Your task to perform on an android device: Open network settings Image 0: 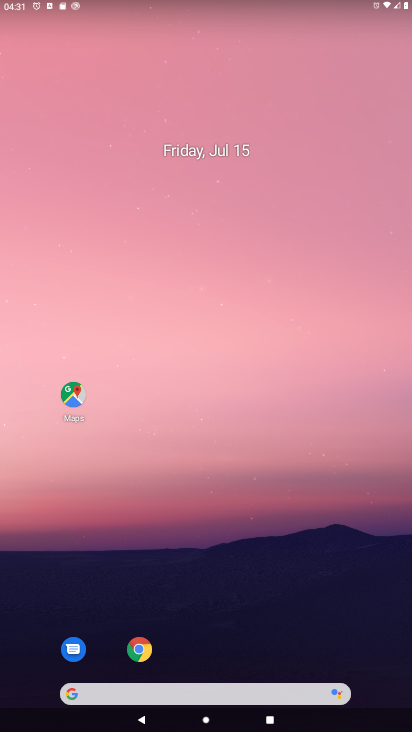
Step 0: drag from (386, 679) to (318, 66)
Your task to perform on an android device: Open network settings Image 1: 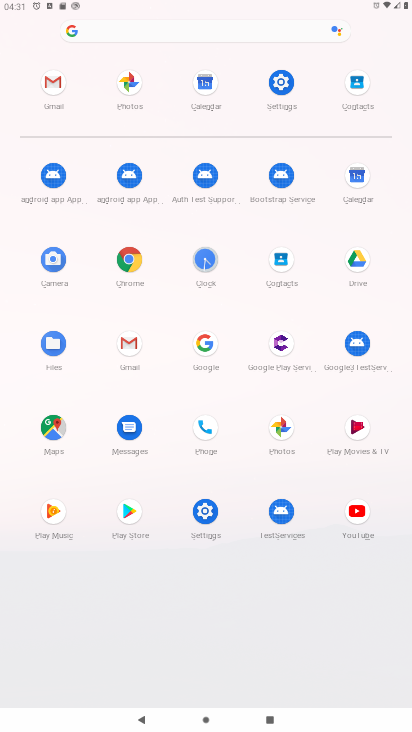
Step 1: click (202, 510)
Your task to perform on an android device: Open network settings Image 2: 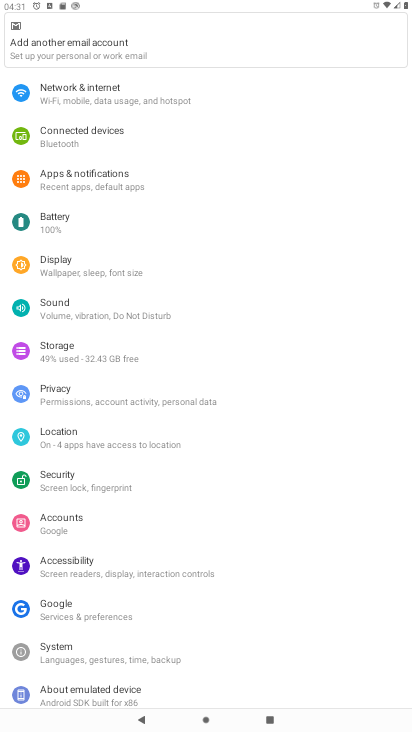
Step 2: click (78, 84)
Your task to perform on an android device: Open network settings Image 3: 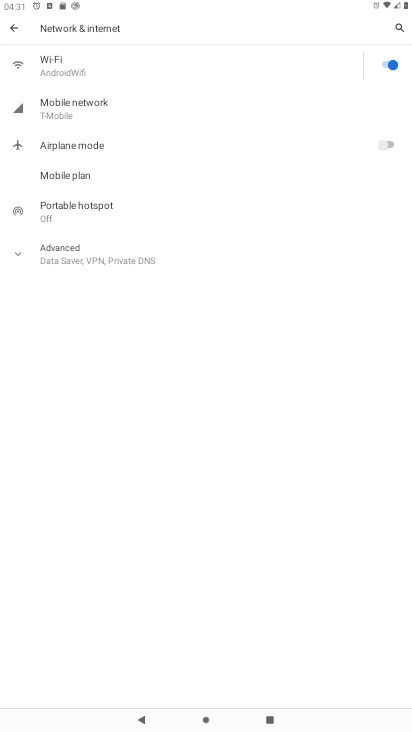
Step 3: click (18, 255)
Your task to perform on an android device: Open network settings Image 4: 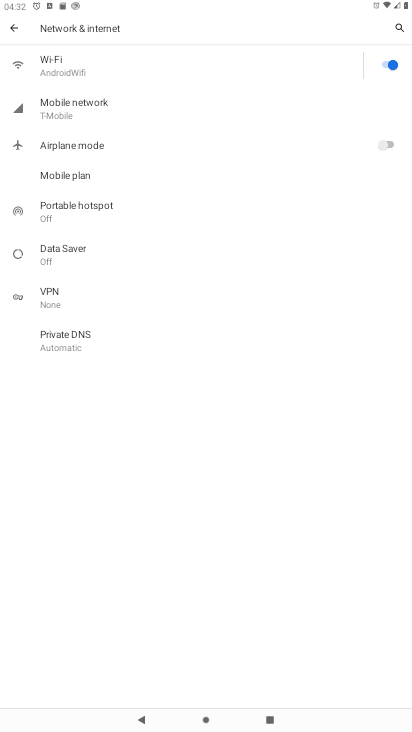
Step 4: click (59, 99)
Your task to perform on an android device: Open network settings Image 5: 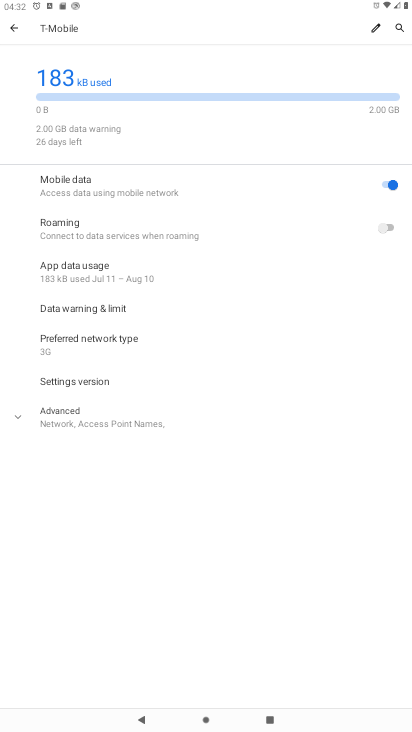
Step 5: task complete